Your task to perform on an android device: stop showing notifications on the lock screen Image 0: 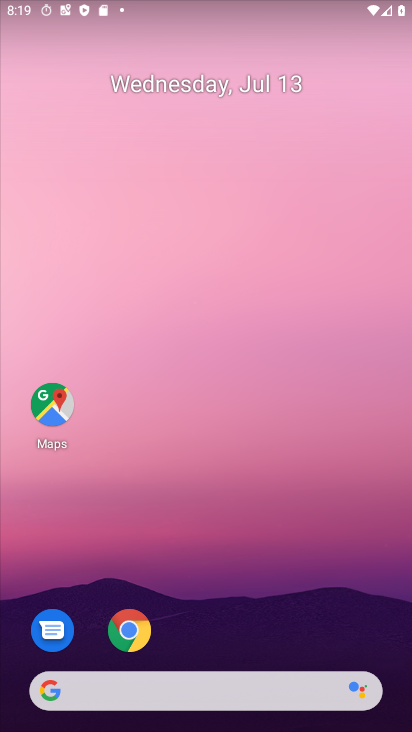
Step 0: drag from (363, 617) to (358, 111)
Your task to perform on an android device: stop showing notifications on the lock screen Image 1: 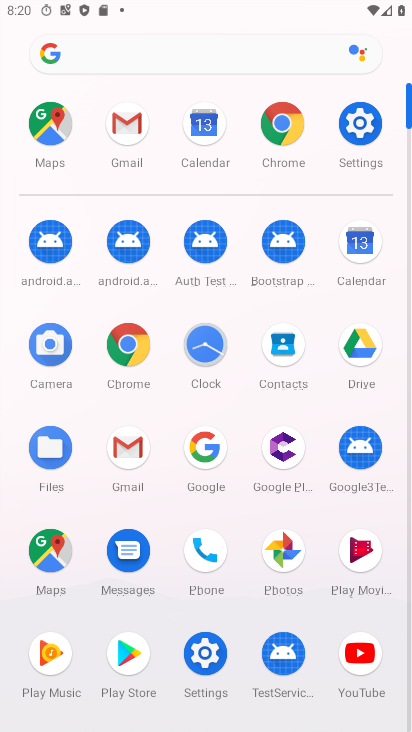
Step 1: click (361, 135)
Your task to perform on an android device: stop showing notifications on the lock screen Image 2: 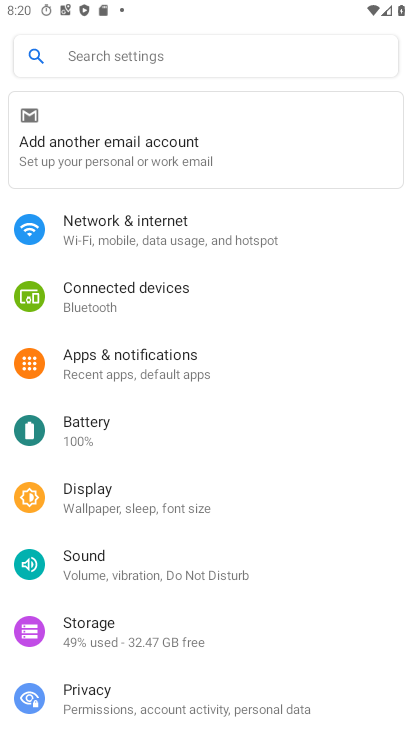
Step 2: drag from (344, 437) to (347, 347)
Your task to perform on an android device: stop showing notifications on the lock screen Image 3: 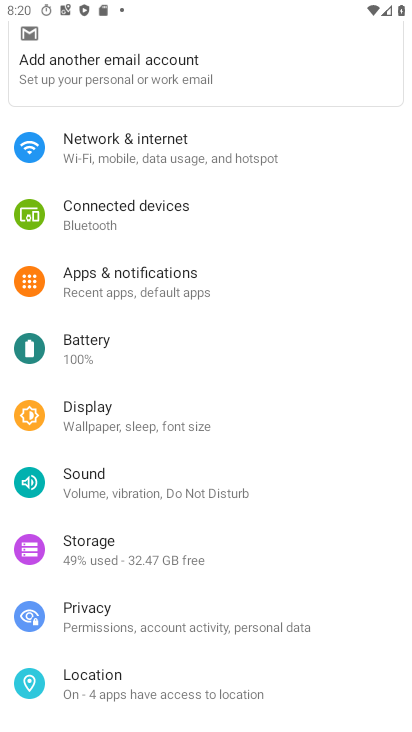
Step 3: drag from (347, 417) to (346, 298)
Your task to perform on an android device: stop showing notifications on the lock screen Image 4: 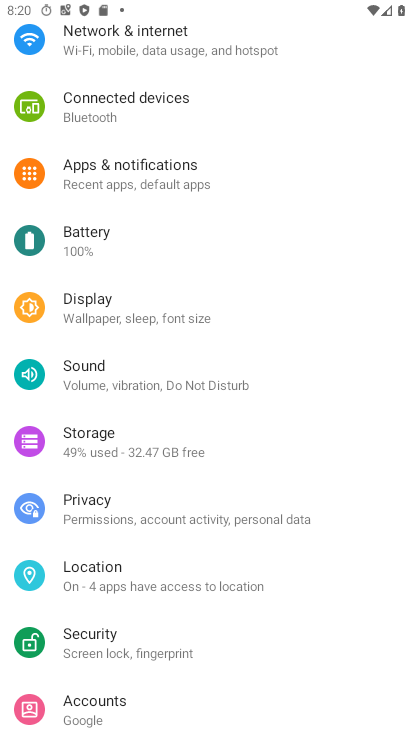
Step 4: drag from (341, 469) to (341, 245)
Your task to perform on an android device: stop showing notifications on the lock screen Image 5: 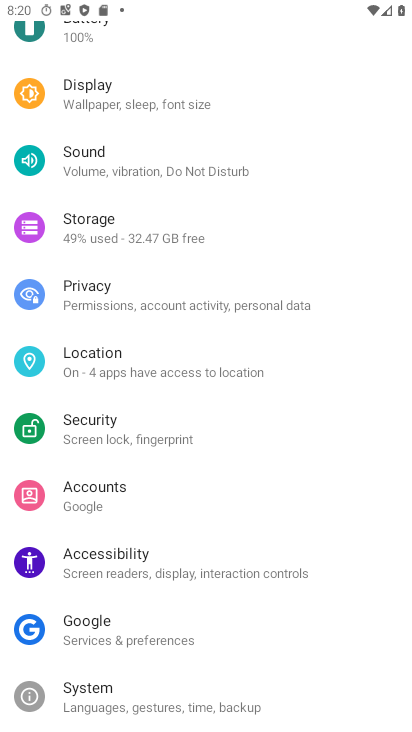
Step 5: drag from (345, 465) to (345, 326)
Your task to perform on an android device: stop showing notifications on the lock screen Image 6: 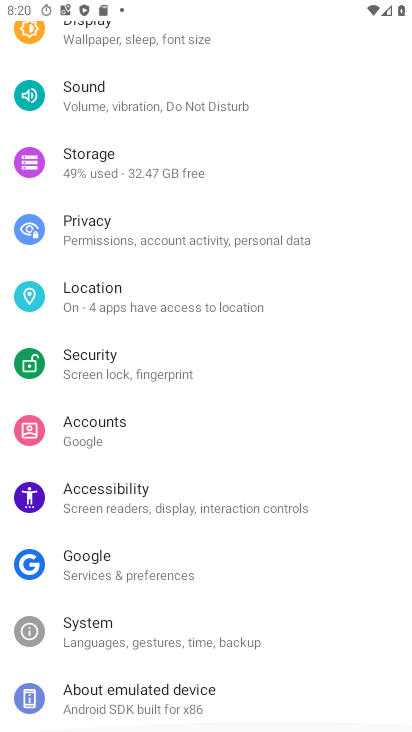
Step 6: drag from (345, 286) to (344, 367)
Your task to perform on an android device: stop showing notifications on the lock screen Image 7: 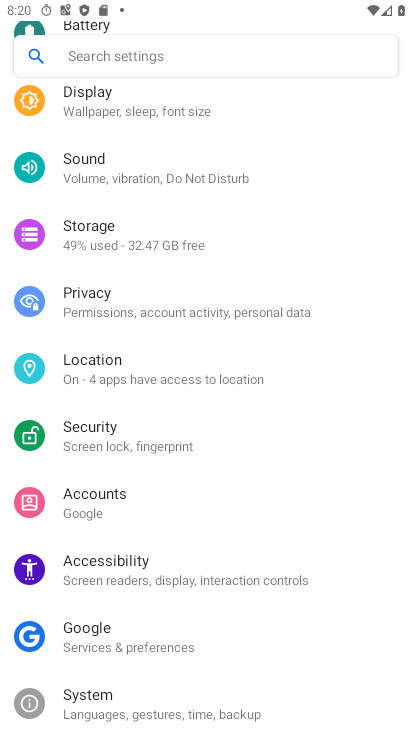
Step 7: drag from (342, 251) to (345, 348)
Your task to perform on an android device: stop showing notifications on the lock screen Image 8: 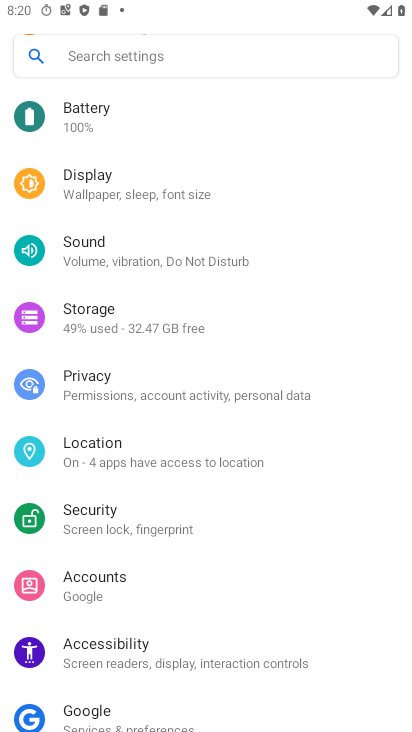
Step 8: drag from (340, 259) to (348, 363)
Your task to perform on an android device: stop showing notifications on the lock screen Image 9: 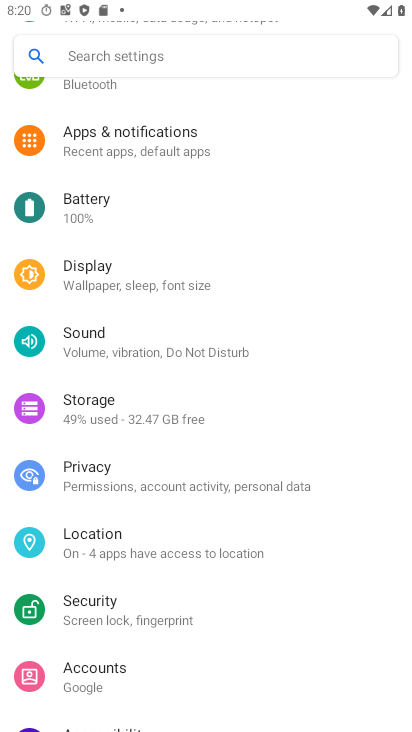
Step 9: drag from (333, 238) to (342, 463)
Your task to perform on an android device: stop showing notifications on the lock screen Image 10: 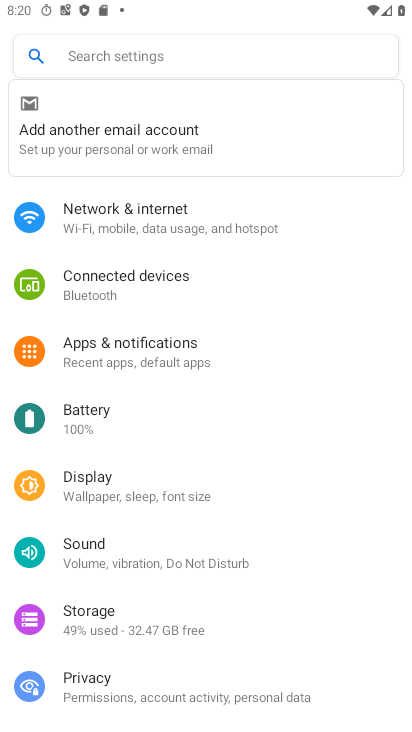
Step 10: drag from (342, 231) to (345, 417)
Your task to perform on an android device: stop showing notifications on the lock screen Image 11: 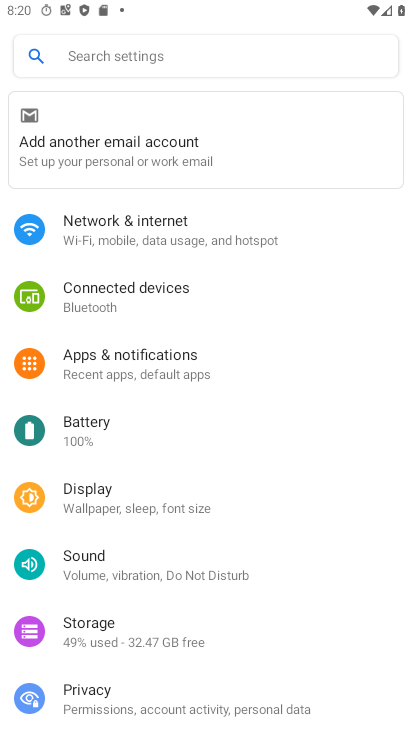
Step 11: click (190, 369)
Your task to perform on an android device: stop showing notifications on the lock screen Image 12: 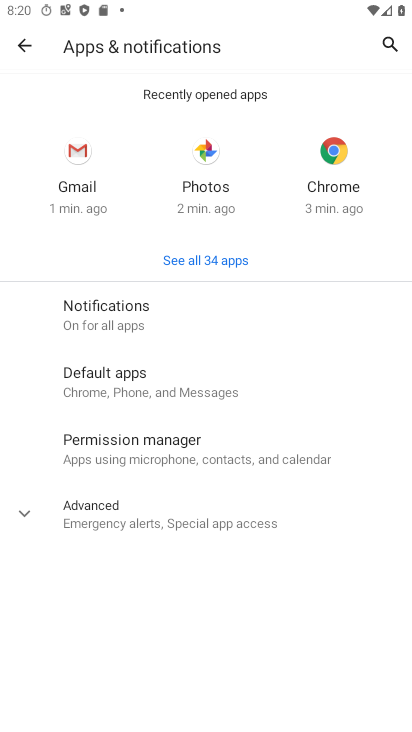
Step 12: click (157, 326)
Your task to perform on an android device: stop showing notifications on the lock screen Image 13: 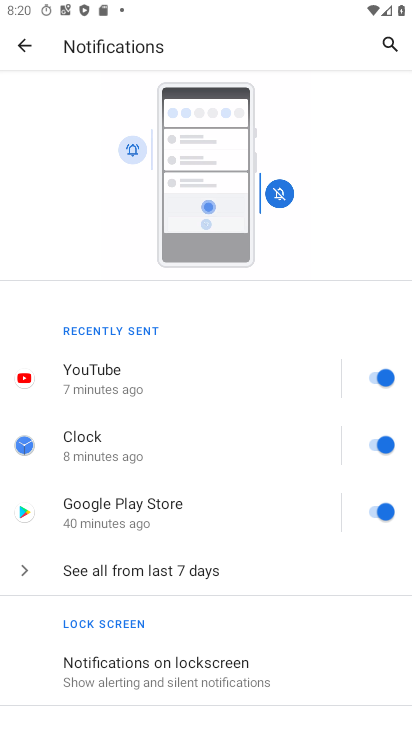
Step 13: drag from (285, 541) to (288, 385)
Your task to perform on an android device: stop showing notifications on the lock screen Image 14: 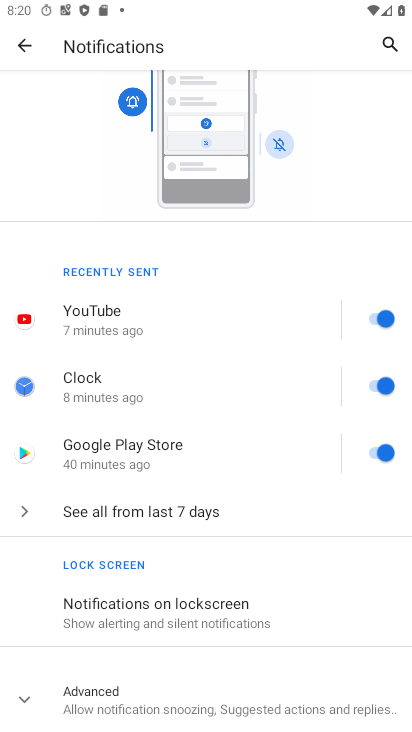
Step 14: click (218, 609)
Your task to perform on an android device: stop showing notifications on the lock screen Image 15: 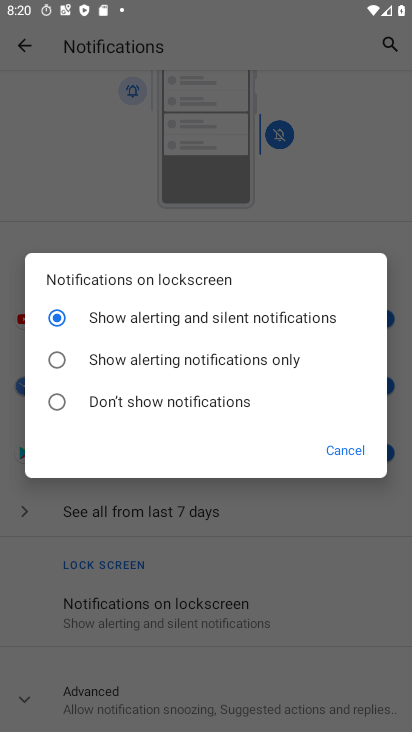
Step 15: click (123, 397)
Your task to perform on an android device: stop showing notifications on the lock screen Image 16: 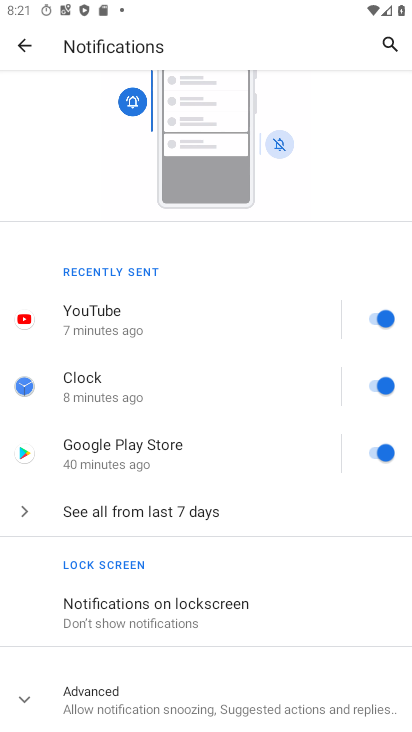
Step 16: task complete